Your task to perform on an android device: Do I have any events this weekend? Image 0: 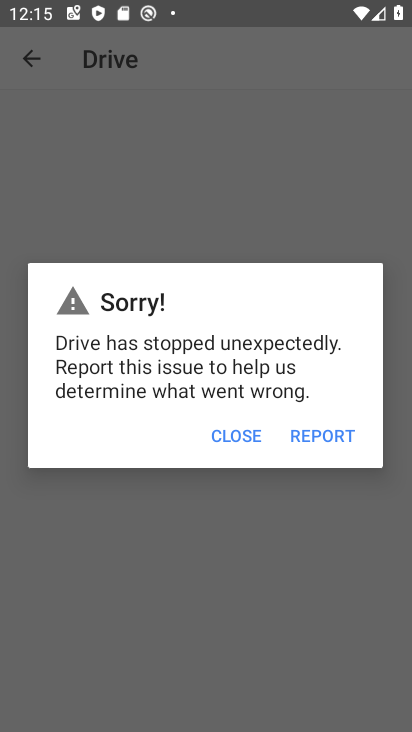
Step 0: press home button
Your task to perform on an android device: Do I have any events this weekend? Image 1: 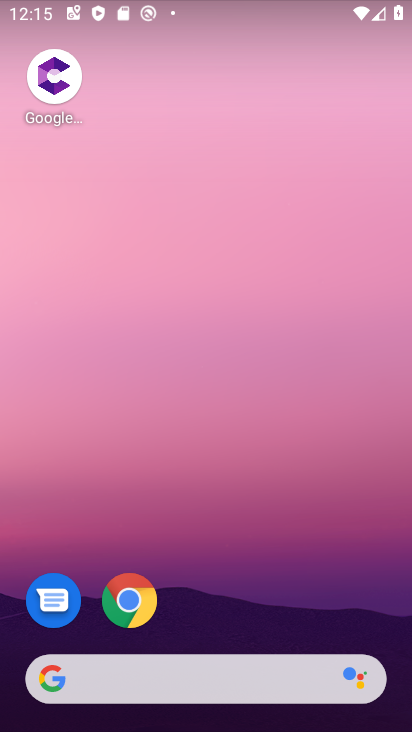
Step 1: drag from (133, 656) to (131, 177)
Your task to perform on an android device: Do I have any events this weekend? Image 2: 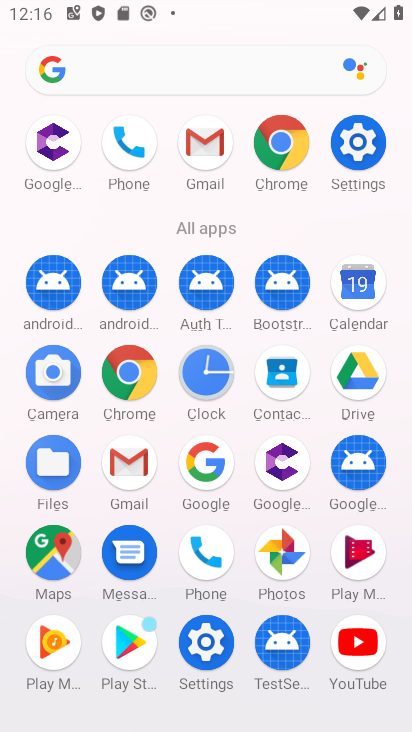
Step 2: click (347, 305)
Your task to perform on an android device: Do I have any events this weekend? Image 3: 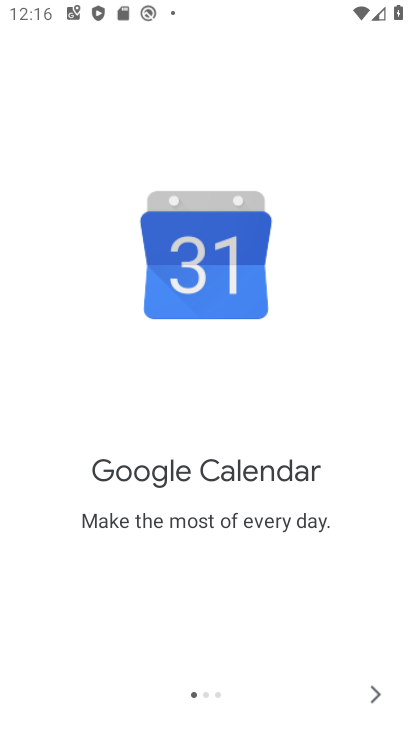
Step 3: click (373, 691)
Your task to perform on an android device: Do I have any events this weekend? Image 4: 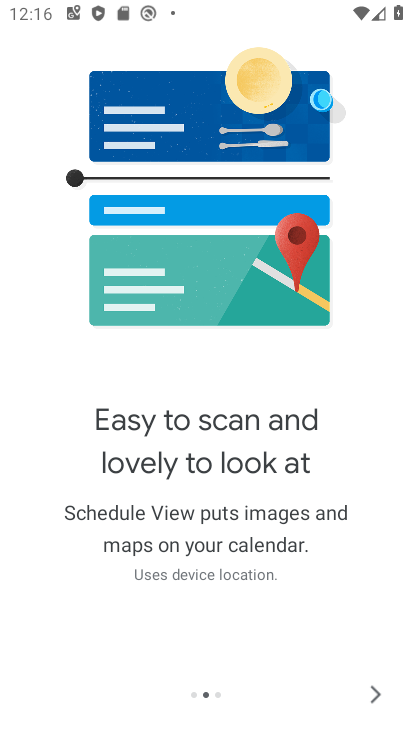
Step 4: click (375, 696)
Your task to perform on an android device: Do I have any events this weekend? Image 5: 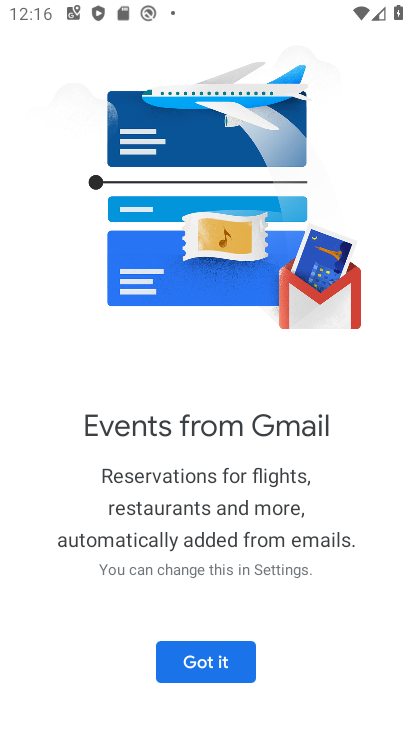
Step 5: click (198, 658)
Your task to perform on an android device: Do I have any events this weekend? Image 6: 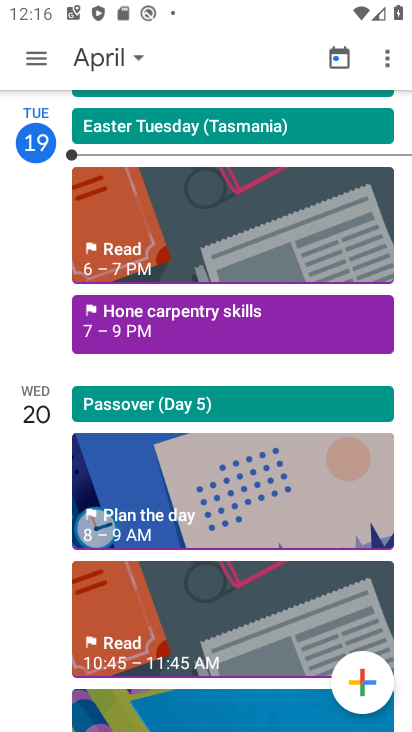
Step 6: click (52, 63)
Your task to perform on an android device: Do I have any events this weekend? Image 7: 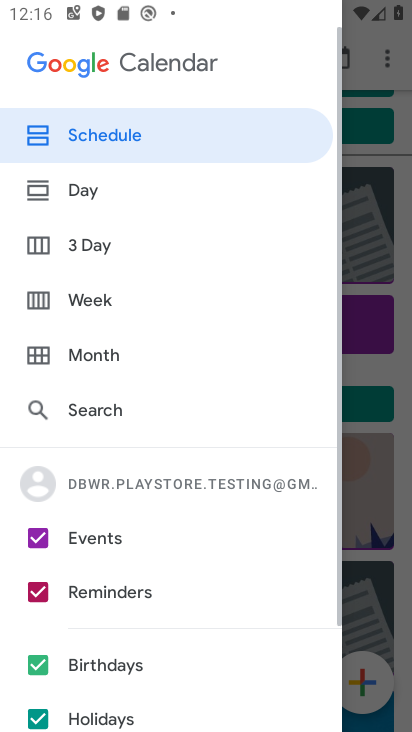
Step 7: click (117, 306)
Your task to perform on an android device: Do I have any events this weekend? Image 8: 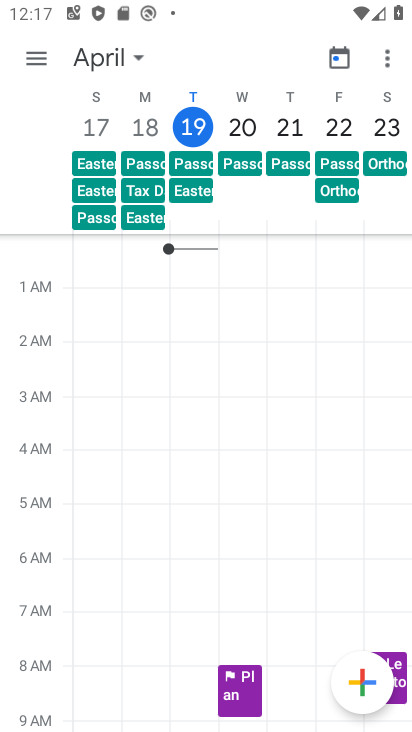
Step 8: task complete